Your task to perform on an android device: Open Google Chrome and click the shortcut for Amazon.com Image 0: 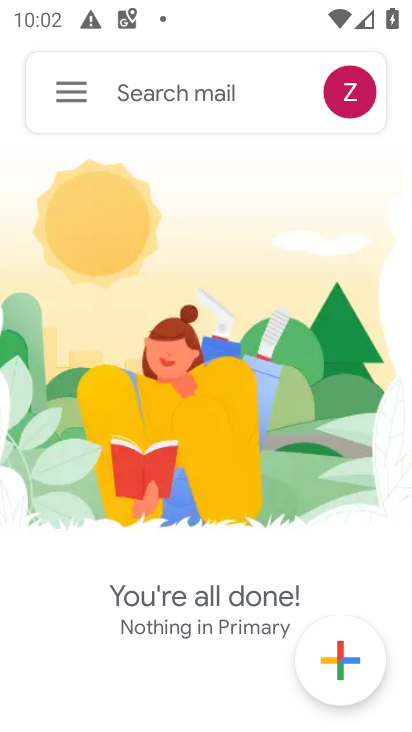
Step 0: press home button
Your task to perform on an android device: Open Google Chrome and click the shortcut for Amazon.com Image 1: 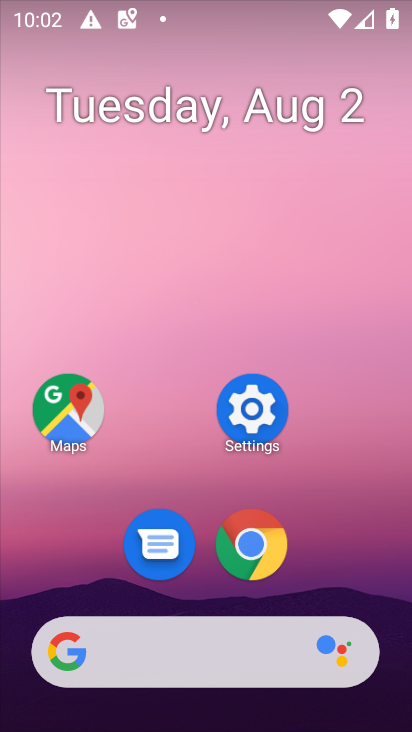
Step 1: click (257, 538)
Your task to perform on an android device: Open Google Chrome and click the shortcut for Amazon.com Image 2: 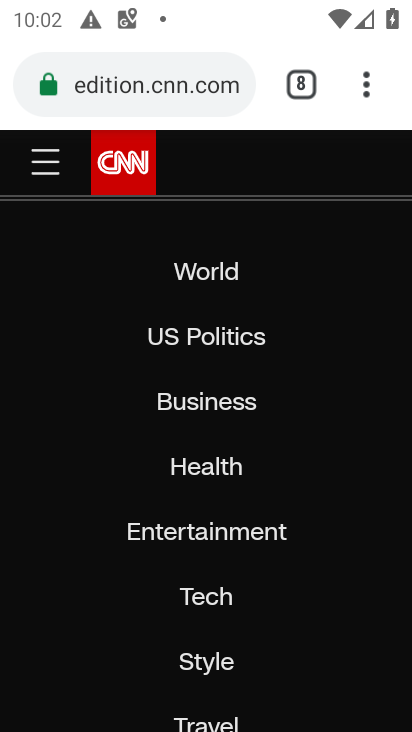
Step 2: drag from (369, 84) to (126, 157)
Your task to perform on an android device: Open Google Chrome and click the shortcut for Amazon.com Image 3: 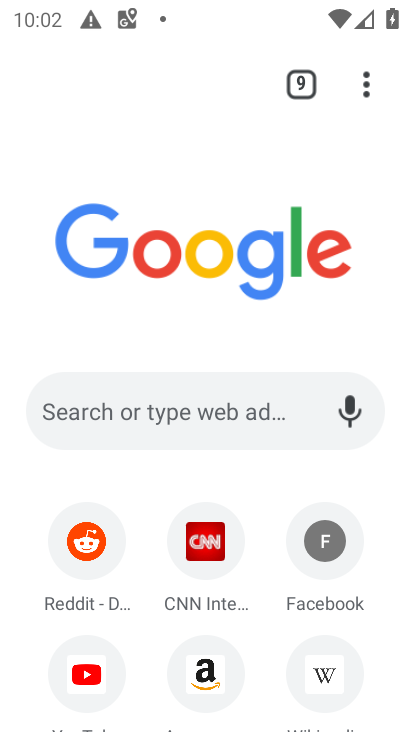
Step 3: click (201, 677)
Your task to perform on an android device: Open Google Chrome and click the shortcut for Amazon.com Image 4: 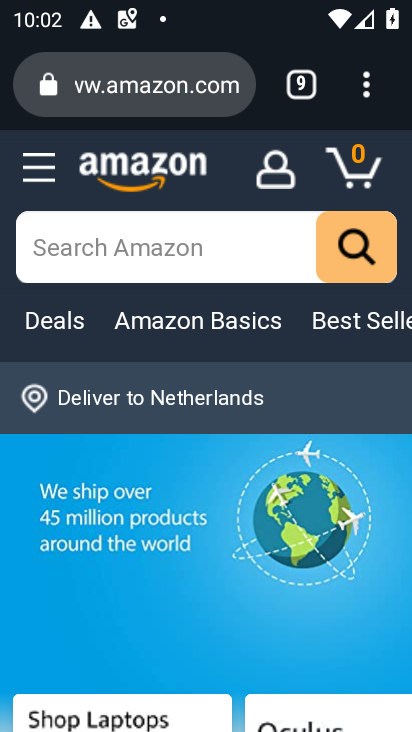
Step 4: task complete